Your task to perform on an android device: turn on improve location accuracy Image 0: 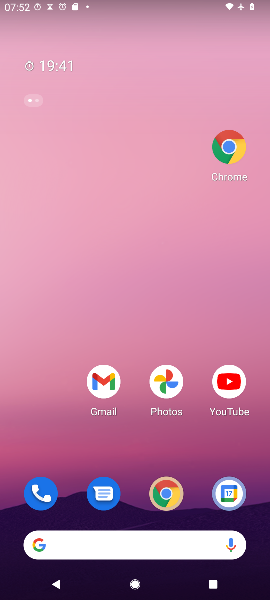
Step 0: press home button
Your task to perform on an android device: turn on improve location accuracy Image 1: 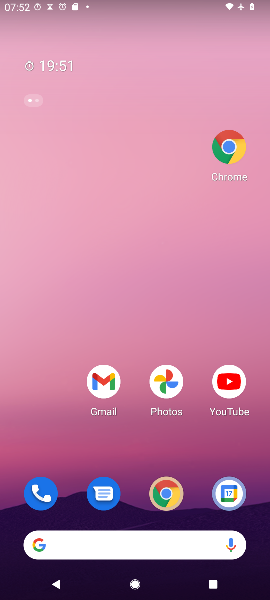
Step 1: drag from (50, 420) to (61, 30)
Your task to perform on an android device: turn on improve location accuracy Image 2: 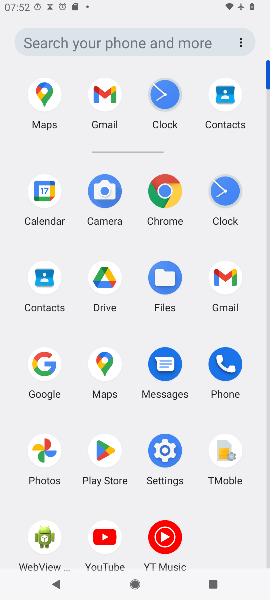
Step 2: click (173, 440)
Your task to perform on an android device: turn on improve location accuracy Image 3: 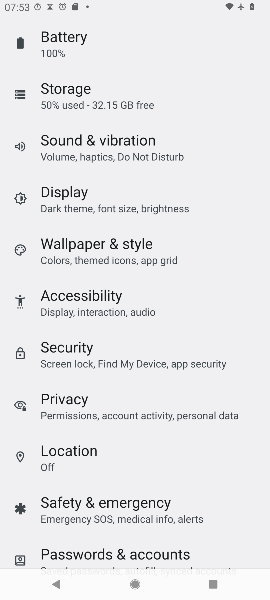
Step 3: click (67, 456)
Your task to perform on an android device: turn on improve location accuracy Image 4: 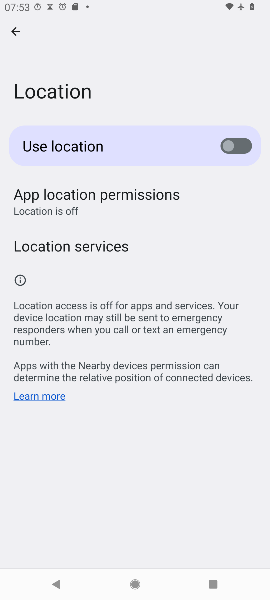
Step 4: click (23, 249)
Your task to perform on an android device: turn on improve location accuracy Image 5: 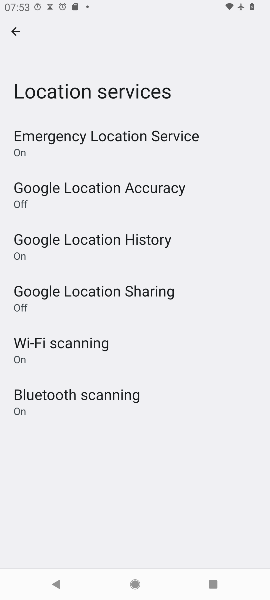
Step 5: click (99, 185)
Your task to perform on an android device: turn on improve location accuracy Image 6: 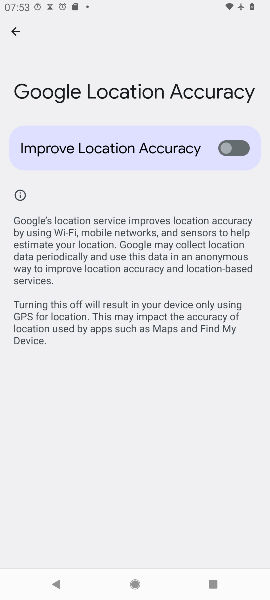
Step 6: click (231, 160)
Your task to perform on an android device: turn on improve location accuracy Image 7: 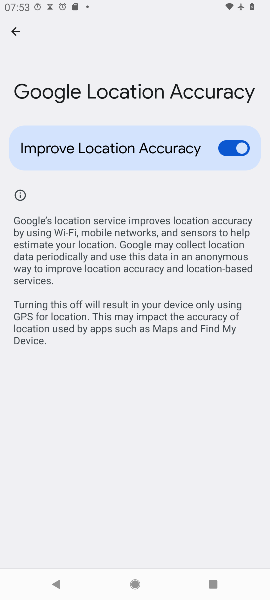
Step 7: task complete